Your task to perform on an android device: turn off notifications settings in the gmail app Image 0: 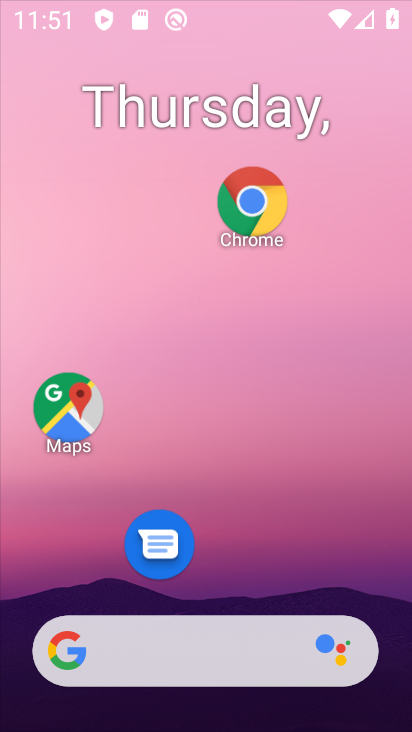
Step 0: click (210, 1)
Your task to perform on an android device: turn off notifications settings in the gmail app Image 1: 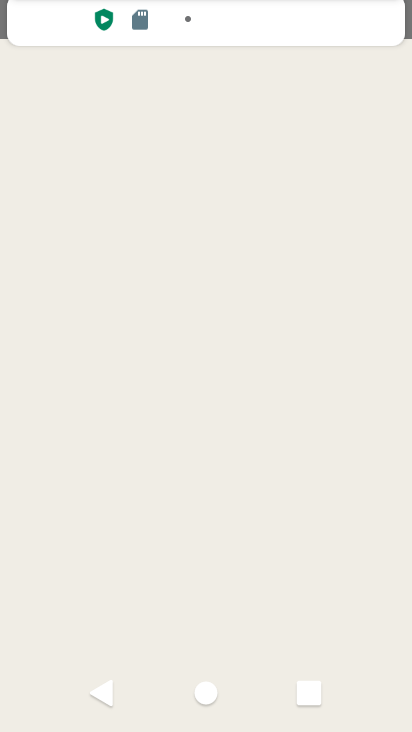
Step 1: press home button
Your task to perform on an android device: turn off notifications settings in the gmail app Image 2: 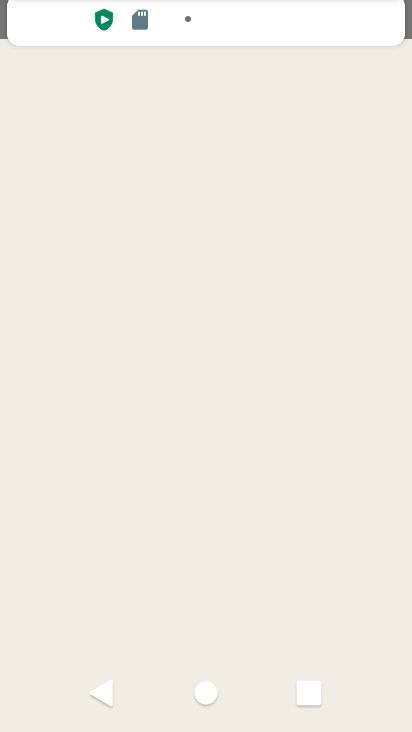
Step 2: click (75, 377)
Your task to perform on an android device: turn off notifications settings in the gmail app Image 3: 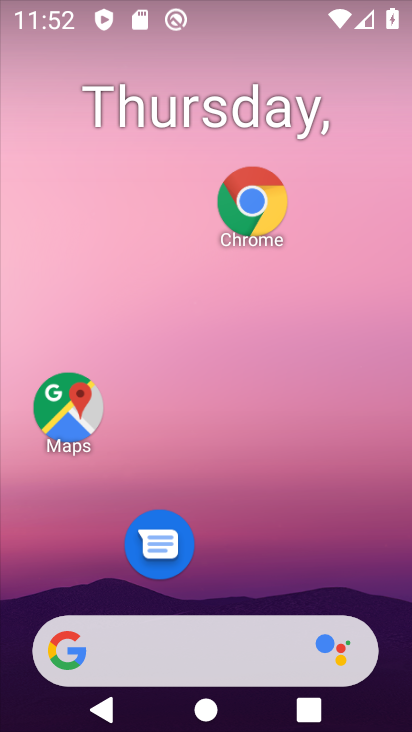
Step 3: drag from (225, 608) to (371, 15)
Your task to perform on an android device: turn off notifications settings in the gmail app Image 4: 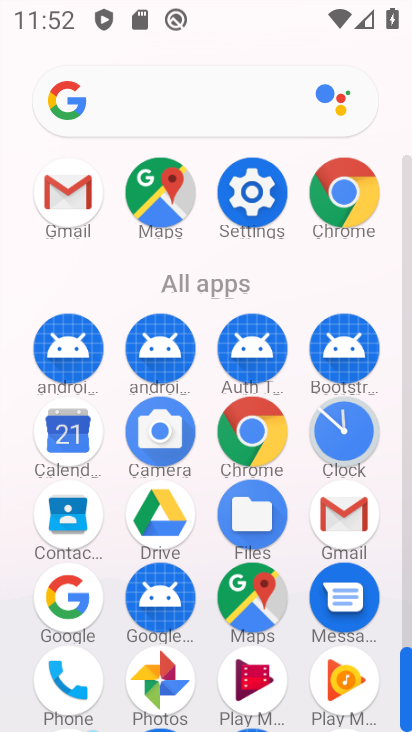
Step 4: click (360, 522)
Your task to perform on an android device: turn off notifications settings in the gmail app Image 5: 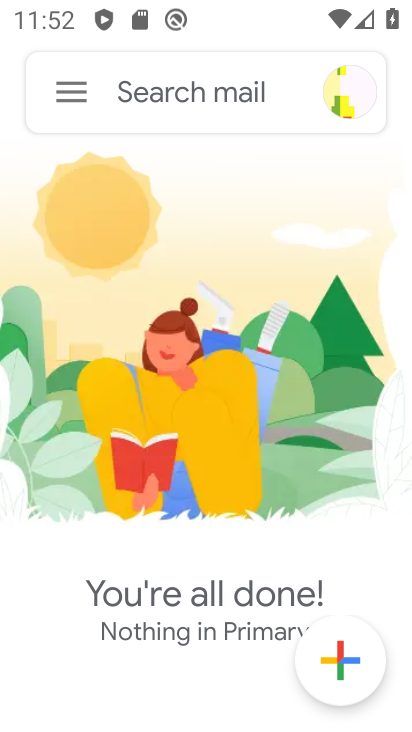
Step 5: click (68, 90)
Your task to perform on an android device: turn off notifications settings in the gmail app Image 6: 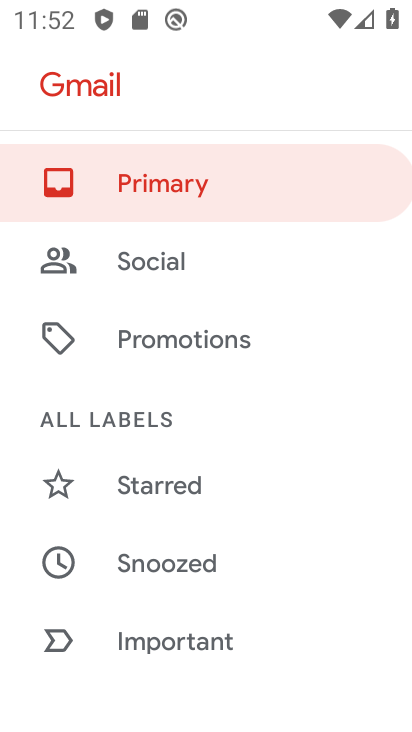
Step 6: drag from (153, 558) to (114, 75)
Your task to perform on an android device: turn off notifications settings in the gmail app Image 7: 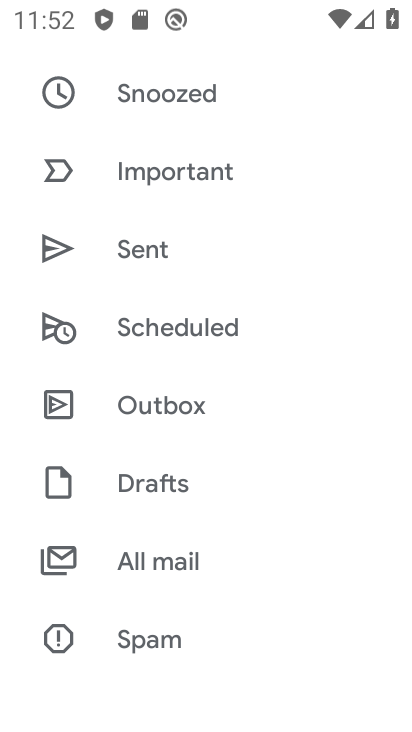
Step 7: drag from (164, 533) to (165, 106)
Your task to perform on an android device: turn off notifications settings in the gmail app Image 8: 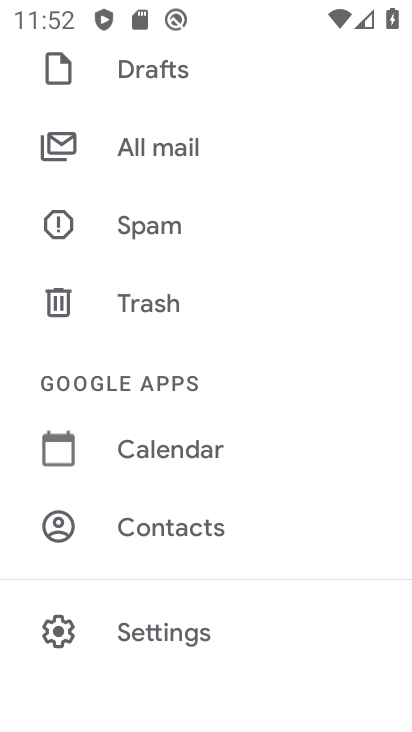
Step 8: click (128, 631)
Your task to perform on an android device: turn off notifications settings in the gmail app Image 9: 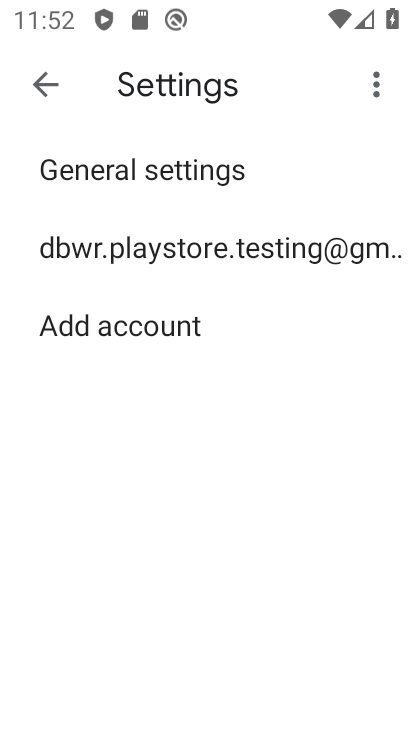
Step 9: click (120, 183)
Your task to perform on an android device: turn off notifications settings in the gmail app Image 10: 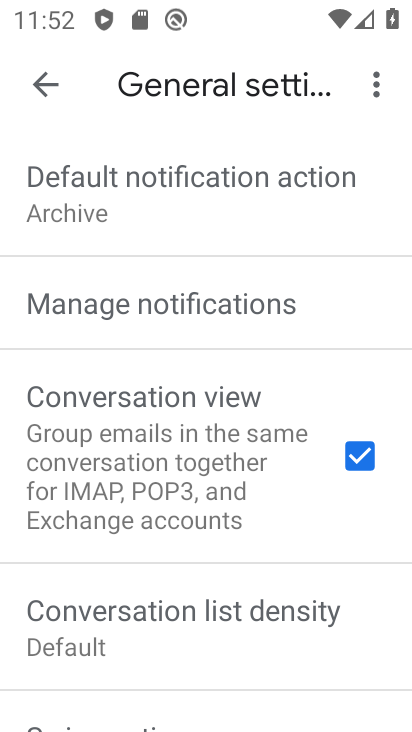
Step 10: click (157, 333)
Your task to perform on an android device: turn off notifications settings in the gmail app Image 11: 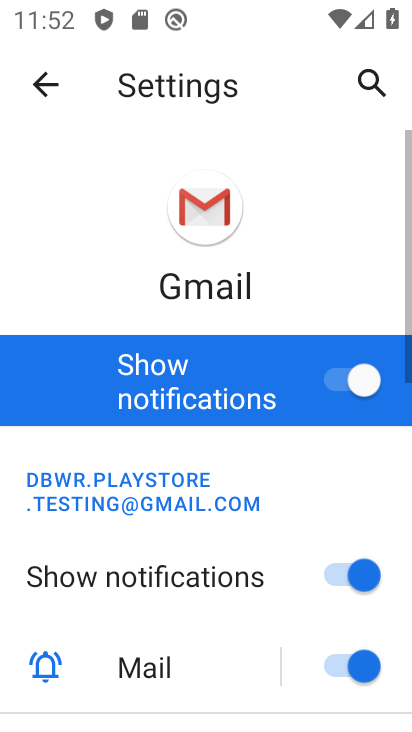
Step 11: click (340, 372)
Your task to perform on an android device: turn off notifications settings in the gmail app Image 12: 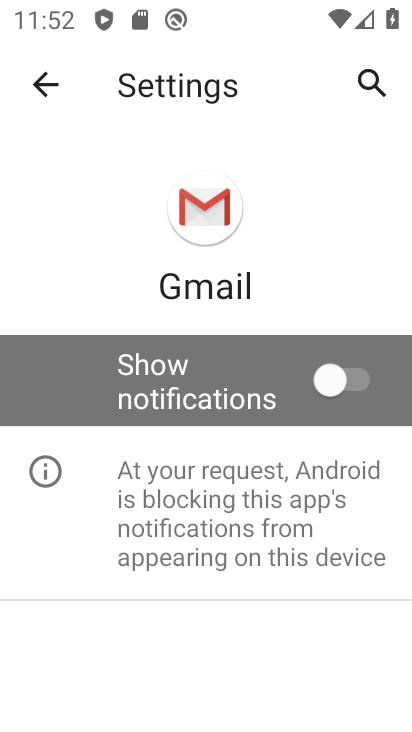
Step 12: task complete